Your task to perform on an android device: Go to wifi settings Image 0: 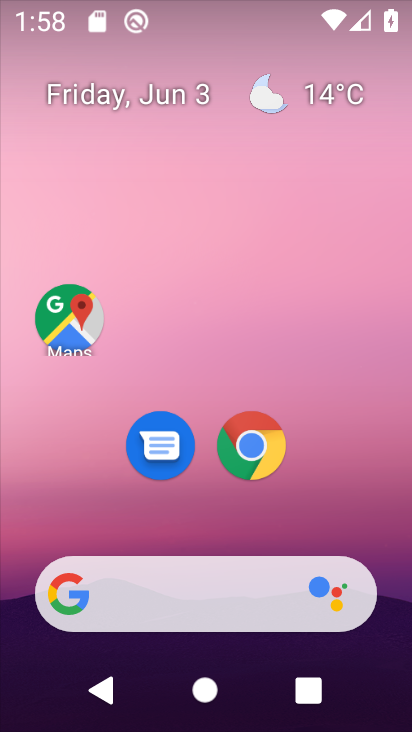
Step 0: drag from (182, 582) to (307, 159)
Your task to perform on an android device: Go to wifi settings Image 1: 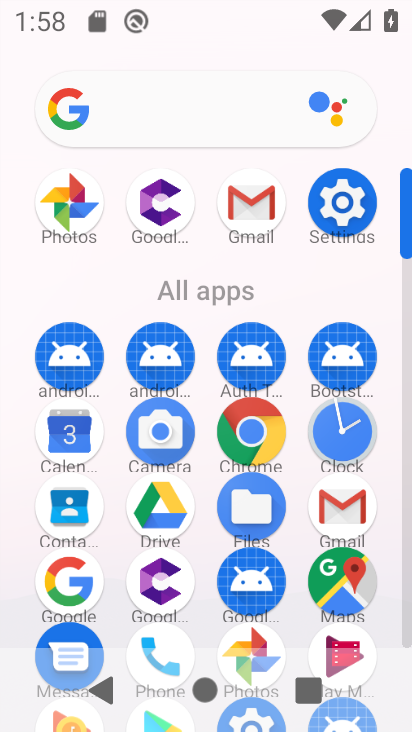
Step 1: drag from (220, 612) to (295, 349)
Your task to perform on an android device: Go to wifi settings Image 2: 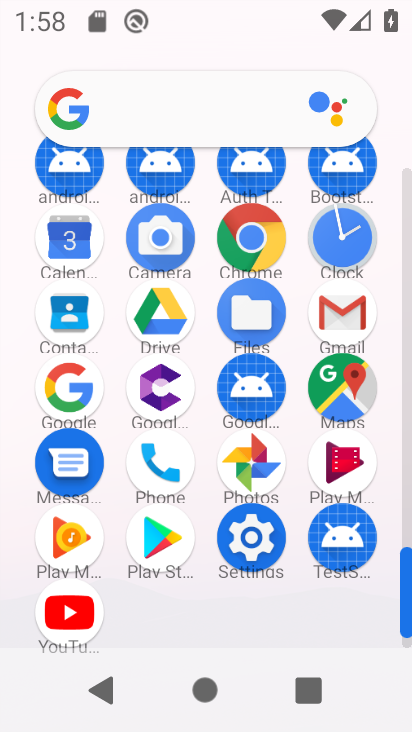
Step 2: click (256, 564)
Your task to perform on an android device: Go to wifi settings Image 3: 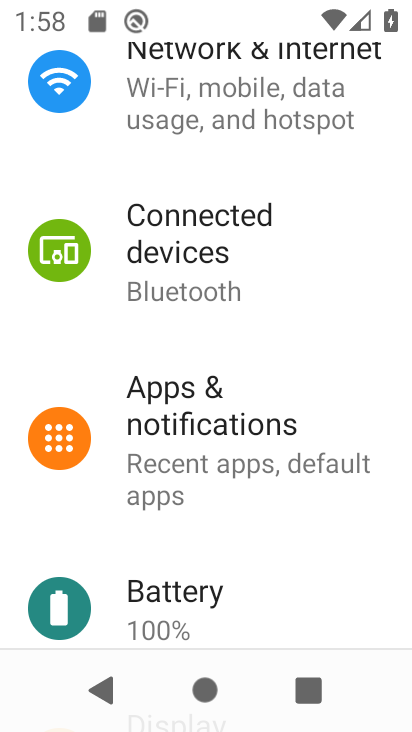
Step 3: click (253, 146)
Your task to perform on an android device: Go to wifi settings Image 4: 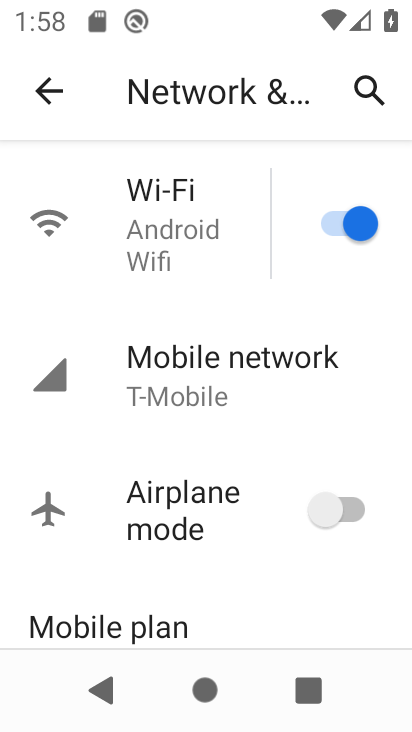
Step 4: click (172, 260)
Your task to perform on an android device: Go to wifi settings Image 5: 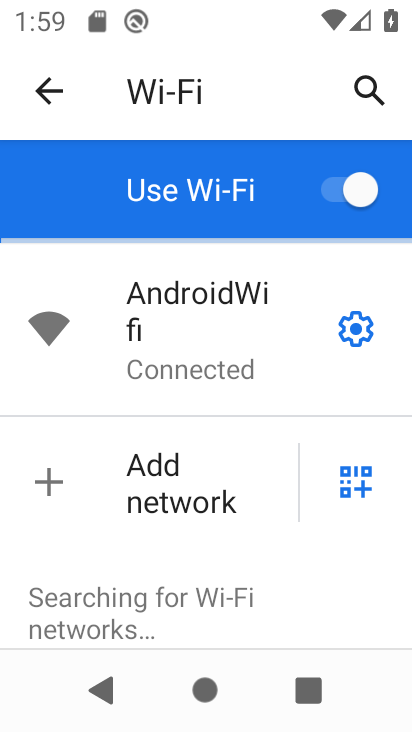
Step 5: task complete